Your task to perform on an android device: toggle priority inbox in the gmail app Image 0: 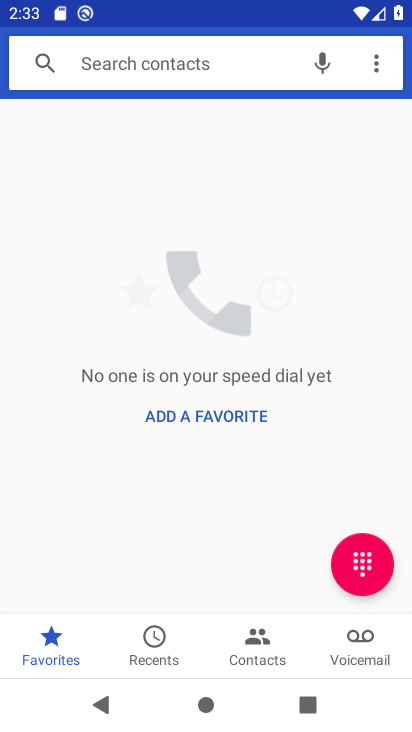
Step 0: press home button
Your task to perform on an android device: toggle priority inbox in the gmail app Image 1: 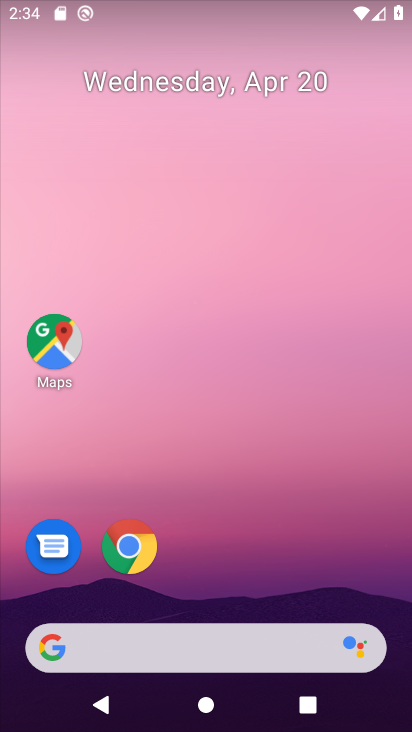
Step 1: drag from (251, 596) to (294, 308)
Your task to perform on an android device: toggle priority inbox in the gmail app Image 2: 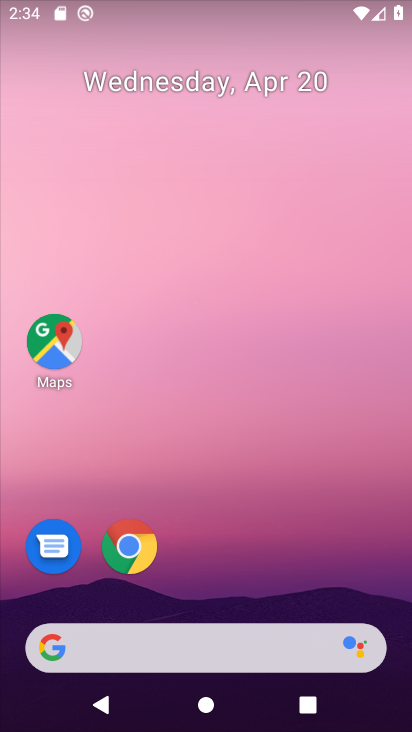
Step 2: drag from (296, 573) to (324, 246)
Your task to perform on an android device: toggle priority inbox in the gmail app Image 3: 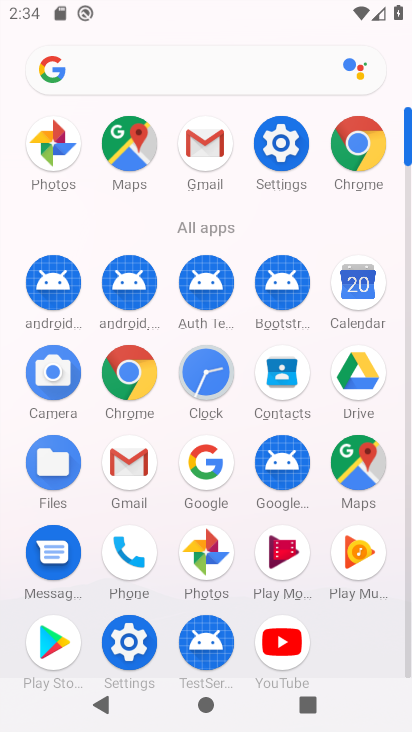
Step 3: click (190, 139)
Your task to perform on an android device: toggle priority inbox in the gmail app Image 4: 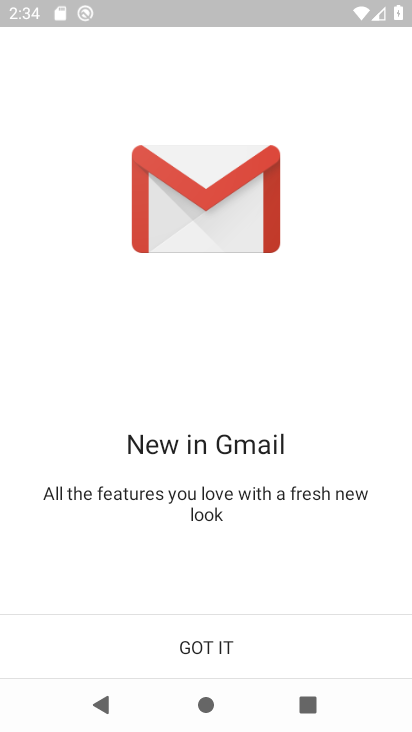
Step 4: click (221, 637)
Your task to perform on an android device: toggle priority inbox in the gmail app Image 5: 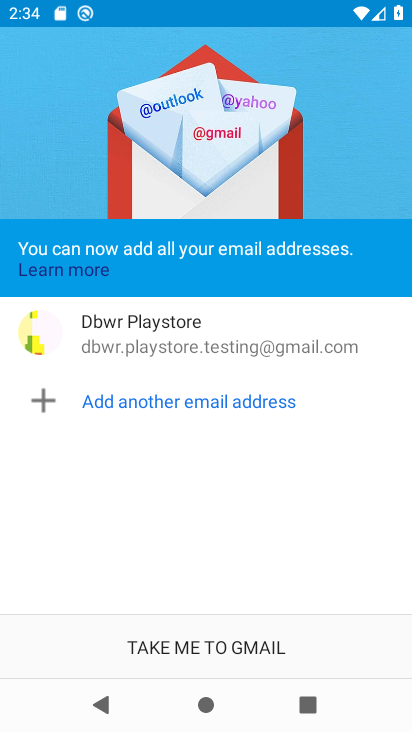
Step 5: click (221, 637)
Your task to perform on an android device: toggle priority inbox in the gmail app Image 6: 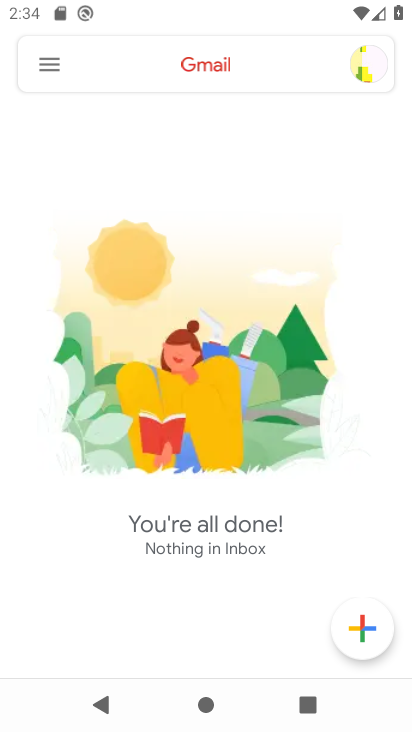
Step 6: click (59, 61)
Your task to perform on an android device: toggle priority inbox in the gmail app Image 7: 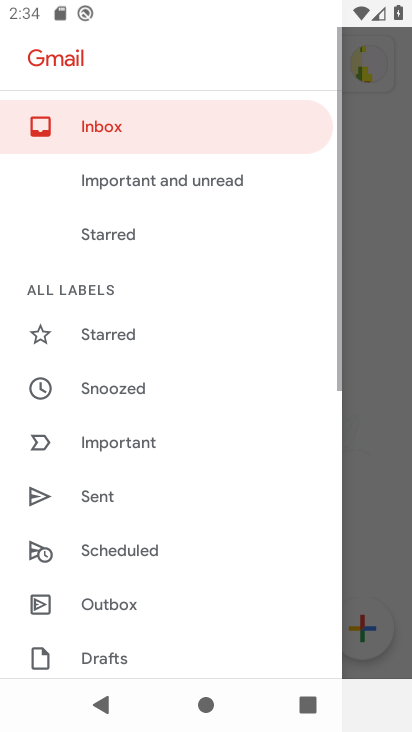
Step 7: drag from (146, 616) to (209, 170)
Your task to perform on an android device: toggle priority inbox in the gmail app Image 8: 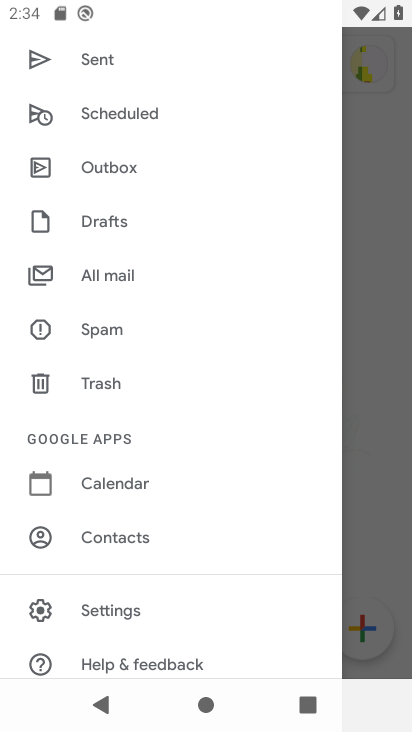
Step 8: click (147, 606)
Your task to perform on an android device: toggle priority inbox in the gmail app Image 9: 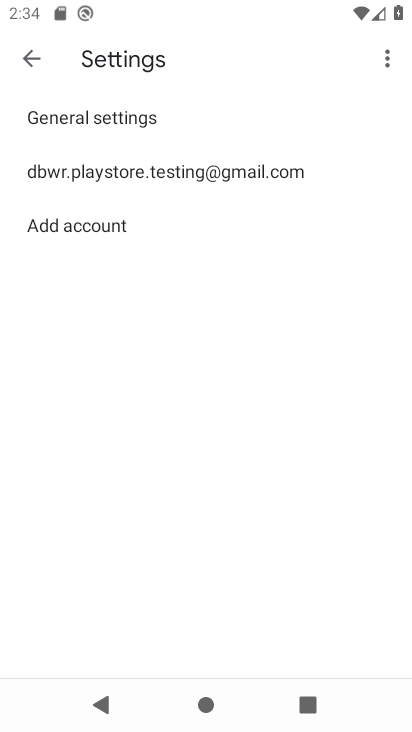
Step 9: click (163, 164)
Your task to perform on an android device: toggle priority inbox in the gmail app Image 10: 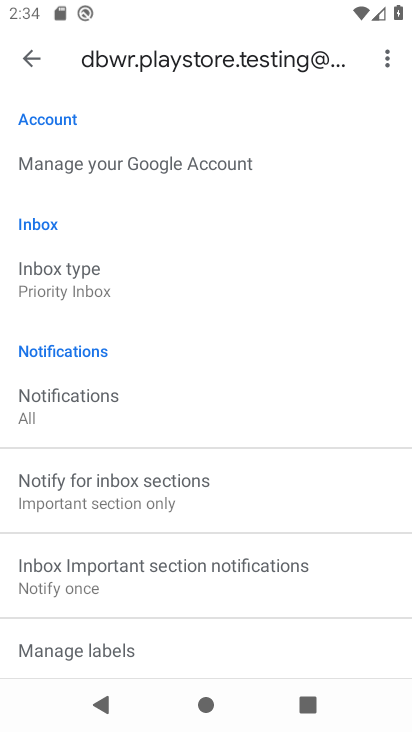
Step 10: click (68, 282)
Your task to perform on an android device: toggle priority inbox in the gmail app Image 11: 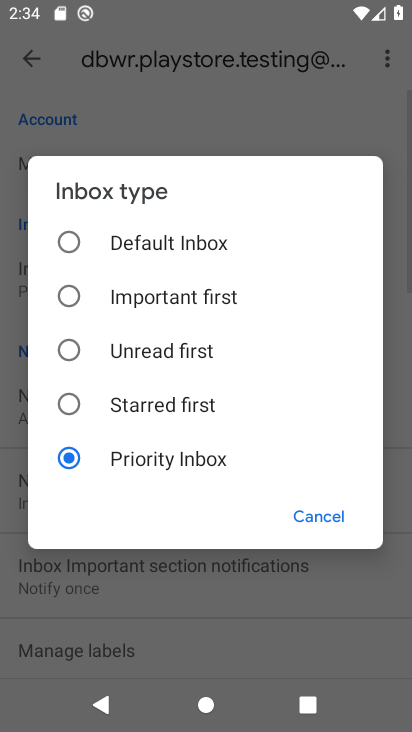
Step 11: click (143, 244)
Your task to perform on an android device: toggle priority inbox in the gmail app Image 12: 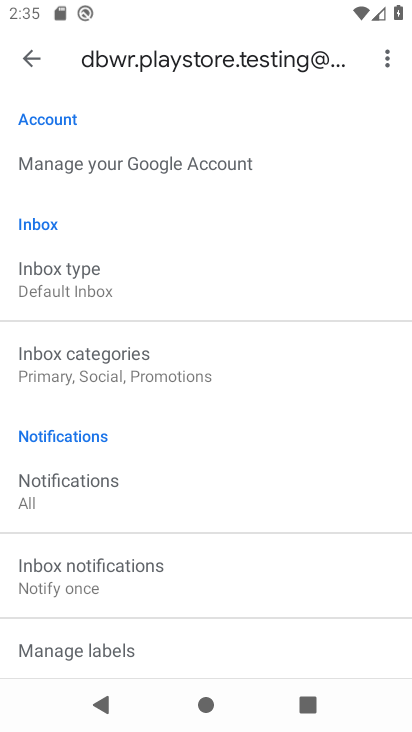
Step 12: task complete